Your task to perform on an android device: open a new tab in the chrome app Image 0: 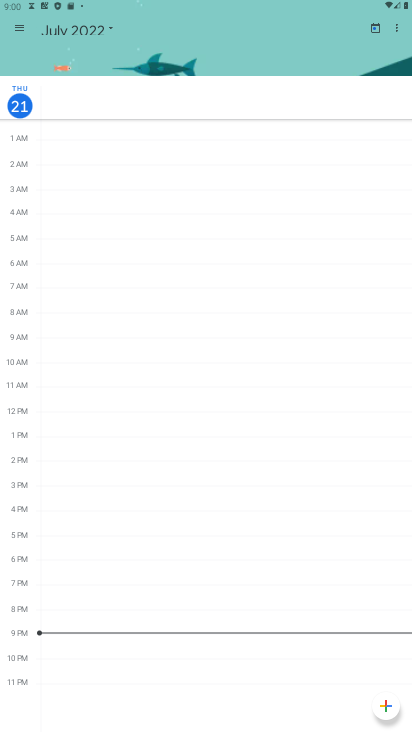
Step 0: press home button
Your task to perform on an android device: open a new tab in the chrome app Image 1: 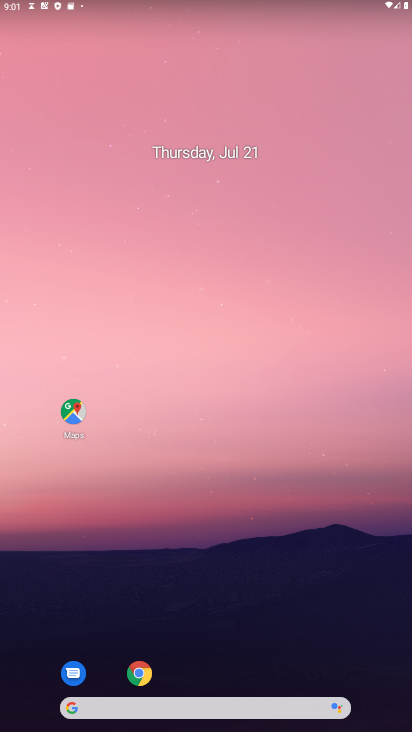
Step 1: click (147, 672)
Your task to perform on an android device: open a new tab in the chrome app Image 2: 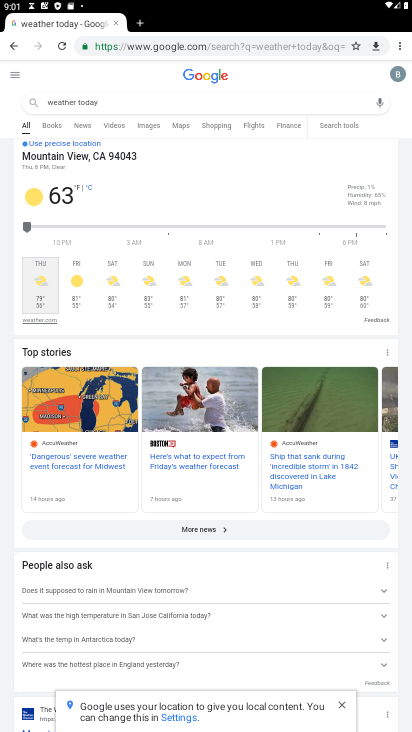
Step 2: click (142, 20)
Your task to perform on an android device: open a new tab in the chrome app Image 3: 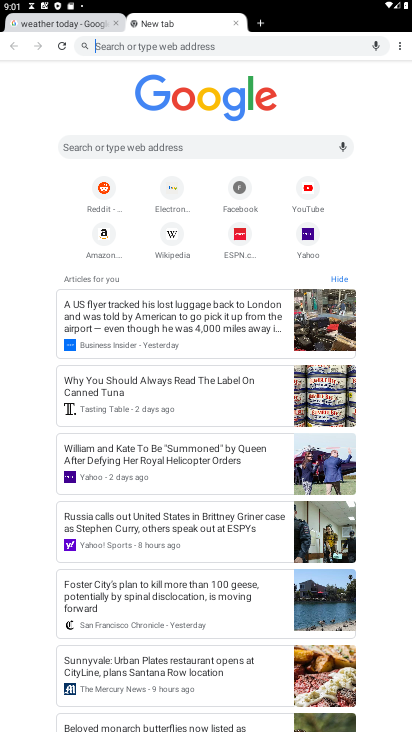
Step 3: task complete